Your task to perform on an android device: toggle priority inbox in the gmail app Image 0: 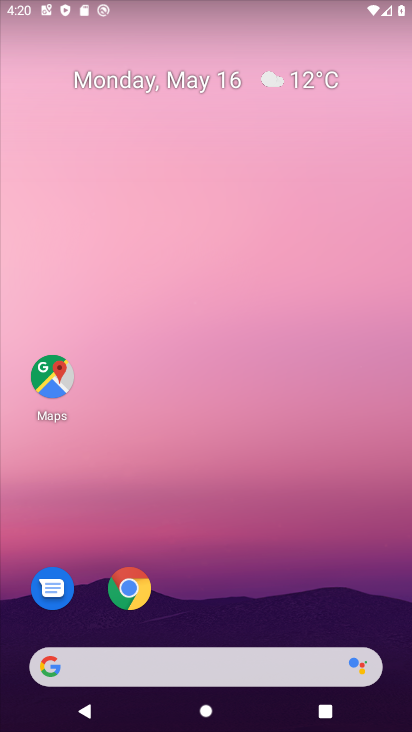
Step 0: drag from (268, 528) to (320, 32)
Your task to perform on an android device: toggle priority inbox in the gmail app Image 1: 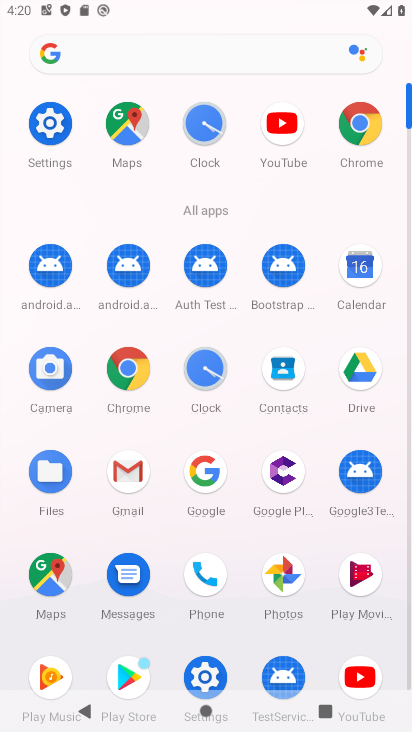
Step 1: click (128, 480)
Your task to perform on an android device: toggle priority inbox in the gmail app Image 2: 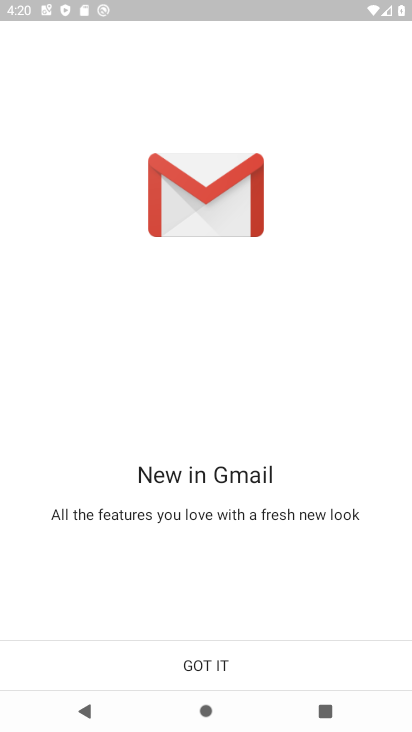
Step 2: click (202, 667)
Your task to perform on an android device: toggle priority inbox in the gmail app Image 3: 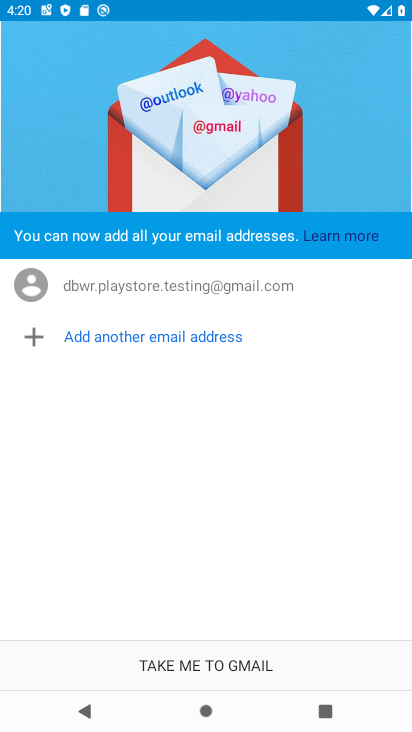
Step 3: click (213, 658)
Your task to perform on an android device: toggle priority inbox in the gmail app Image 4: 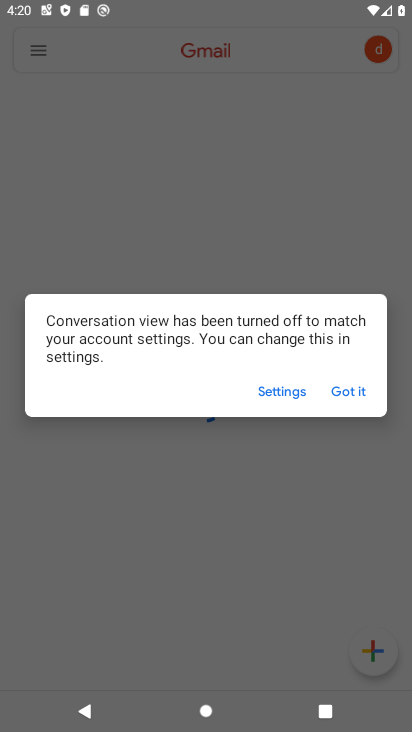
Step 4: click (342, 376)
Your task to perform on an android device: toggle priority inbox in the gmail app Image 5: 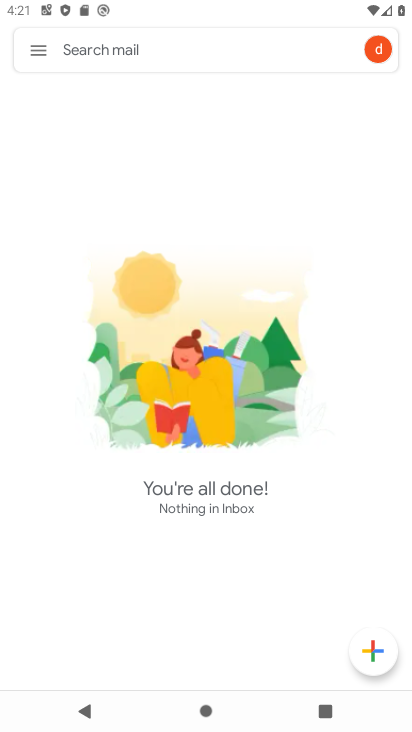
Step 5: click (40, 56)
Your task to perform on an android device: toggle priority inbox in the gmail app Image 6: 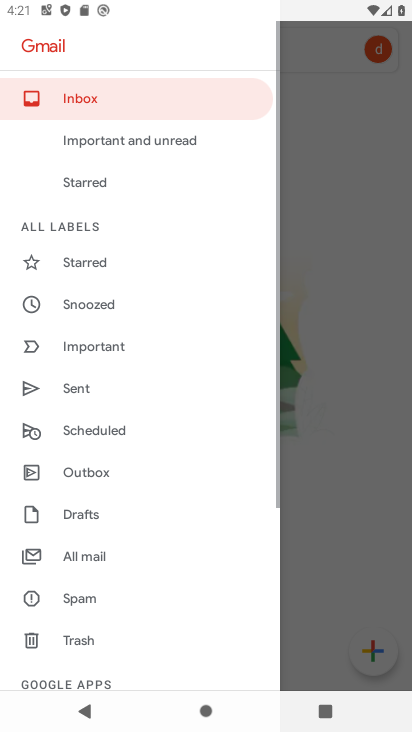
Step 6: drag from (149, 645) to (198, 133)
Your task to perform on an android device: toggle priority inbox in the gmail app Image 7: 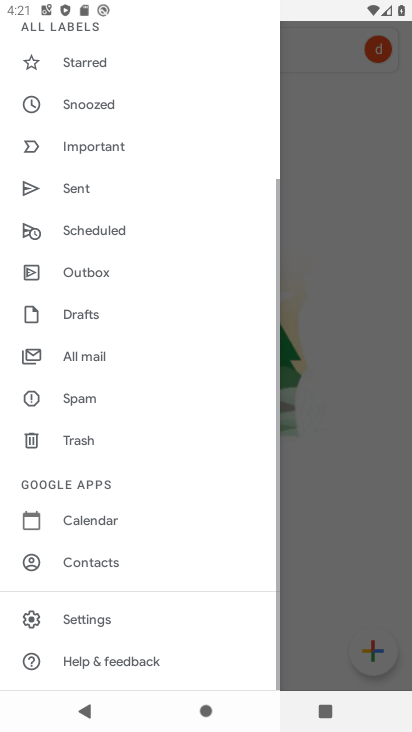
Step 7: click (114, 619)
Your task to perform on an android device: toggle priority inbox in the gmail app Image 8: 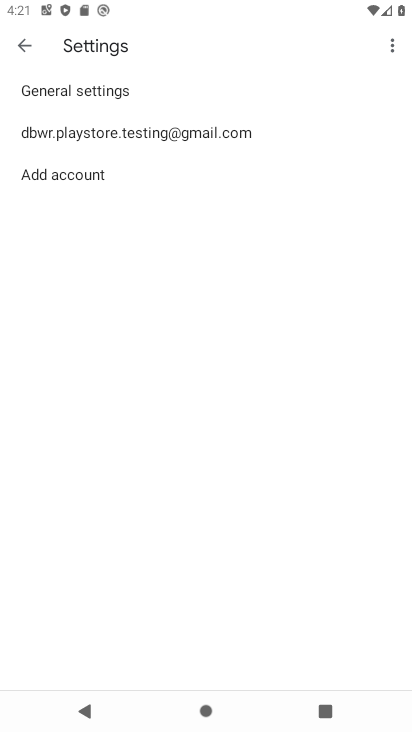
Step 8: click (99, 127)
Your task to perform on an android device: toggle priority inbox in the gmail app Image 9: 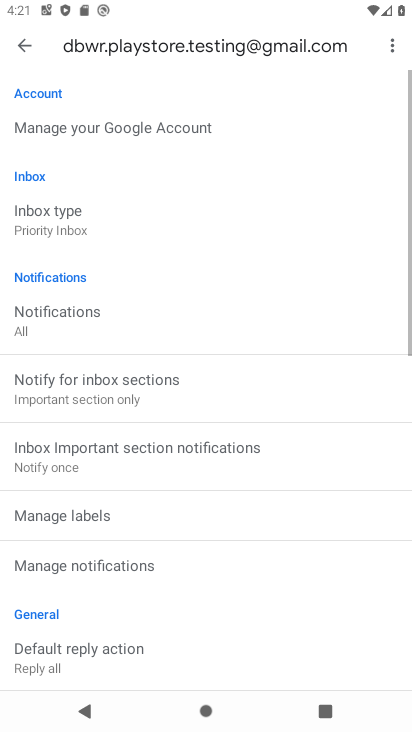
Step 9: click (104, 241)
Your task to perform on an android device: toggle priority inbox in the gmail app Image 10: 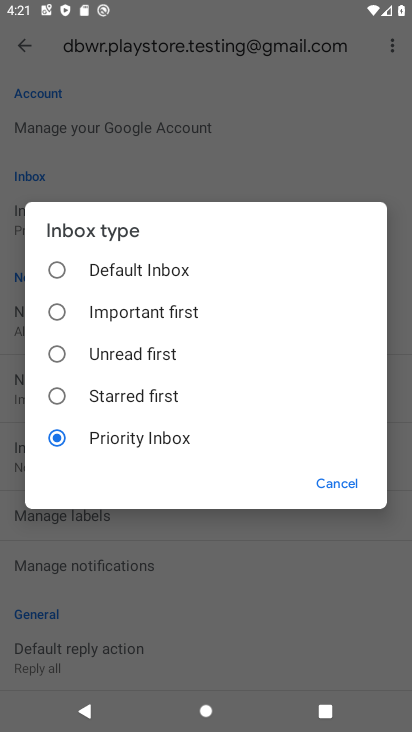
Step 10: click (46, 446)
Your task to perform on an android device: toggle priority inbox in the gmail app Image 11: 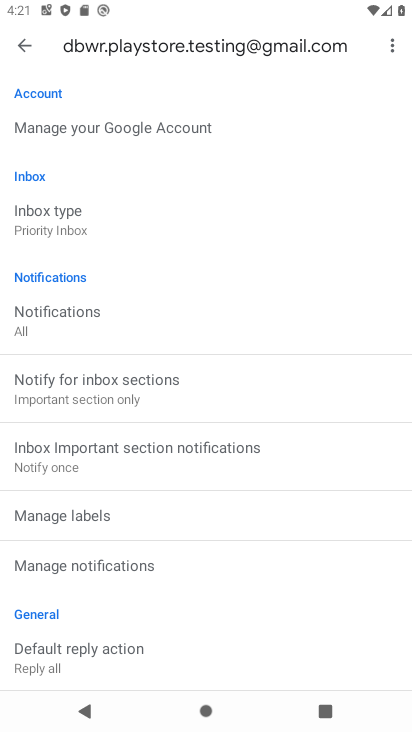
Step 11: task complete